Your task to perform on an android device: Go to battery settings Image 0: 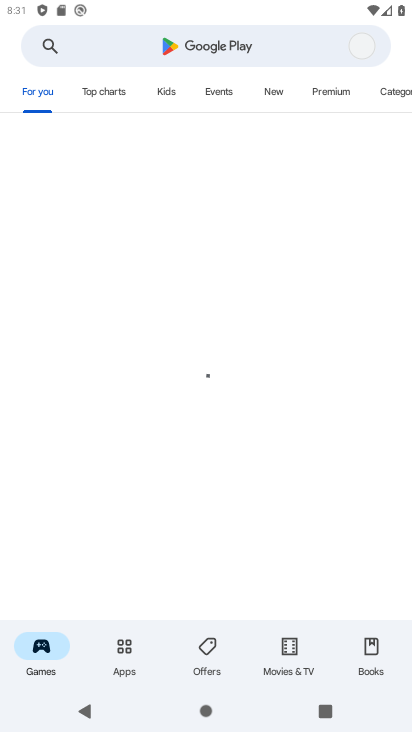
Step 0: press home button
Your task to perform on an android device: Go to battery settings Image 1: 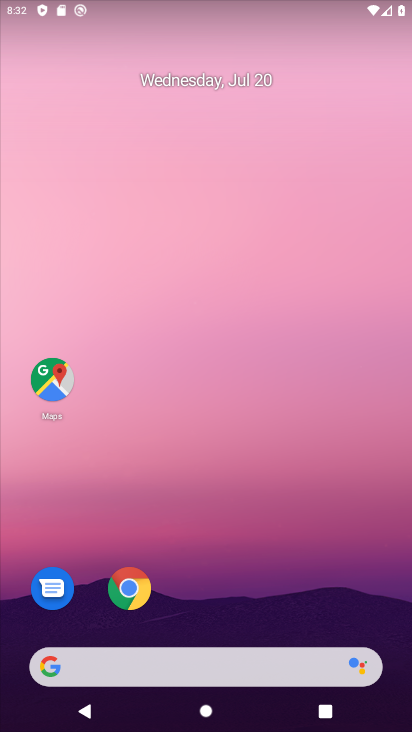
Step 1: drag from (238, 634) to (153, 20)
Your task to perform on an android device: Go to battery settings Image 2: 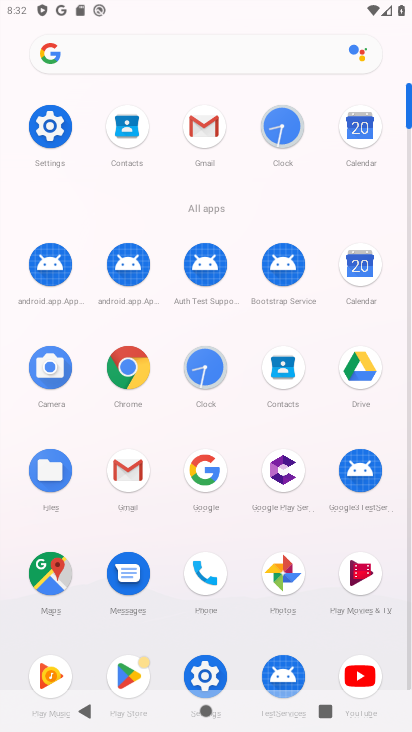
Step 2: click (55, 125)
Your task to perform on an android device: Go to battery settings Image 3: 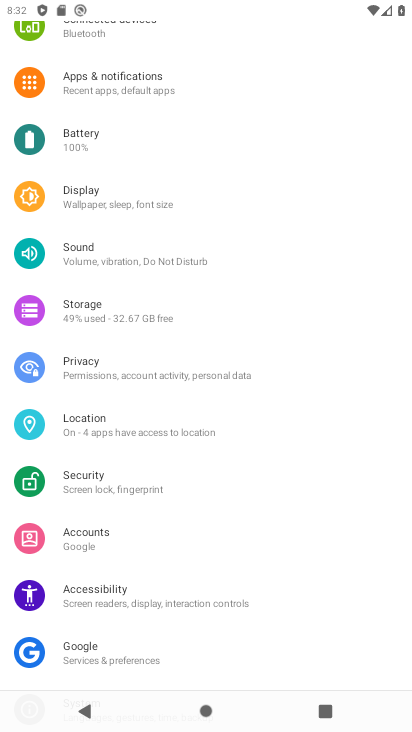
Step 3: click (71, 138)
Your task to perform on an android device: Go to battery settings Image 4: 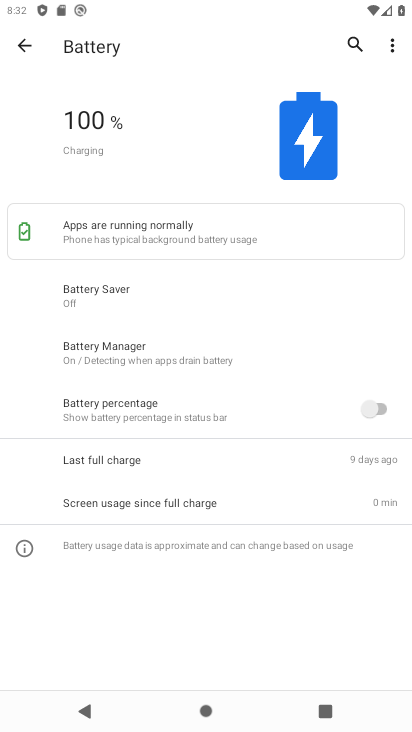
Step 4: task complete